Your task to perform on an android device: see sites visited before in the chrome app Image 0: 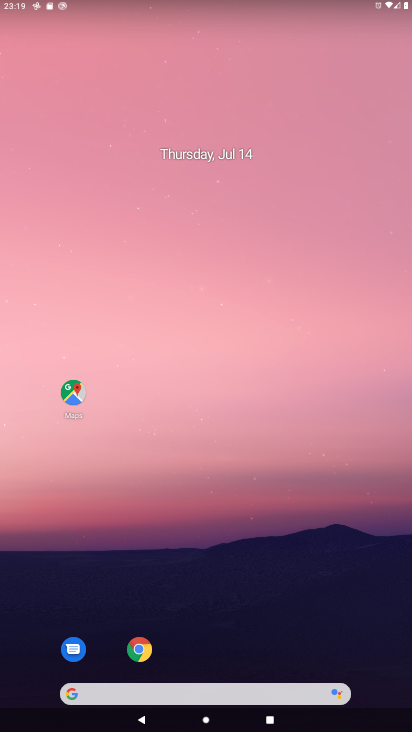
Step 0: click (137, 648)
Your task to perform on an android device: see sites visited before in the chrome app Image 1: 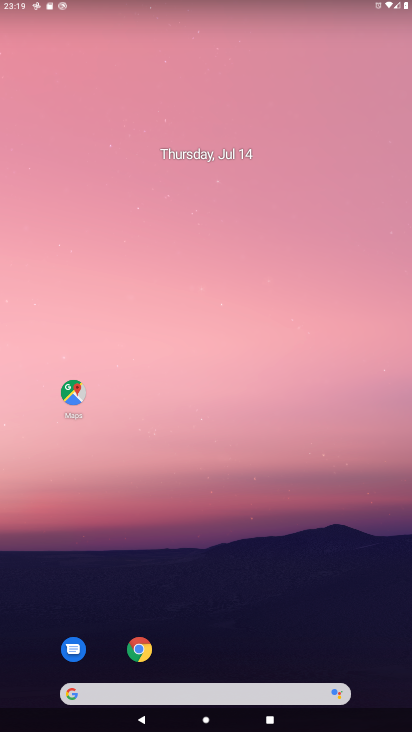
Step 1: click (137, 648)
Your task to perform on an android device: see sites visited before in the chrome app Image 2: 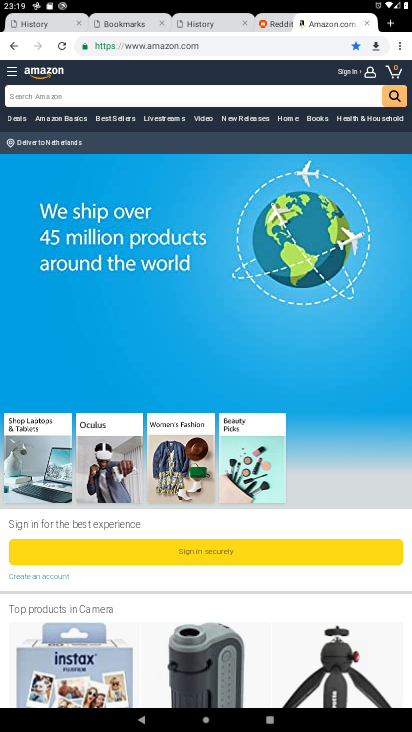
Step 2: click (400, 42)
Your task to perform on an android device: see sites visited before in the chrome app Image 3: 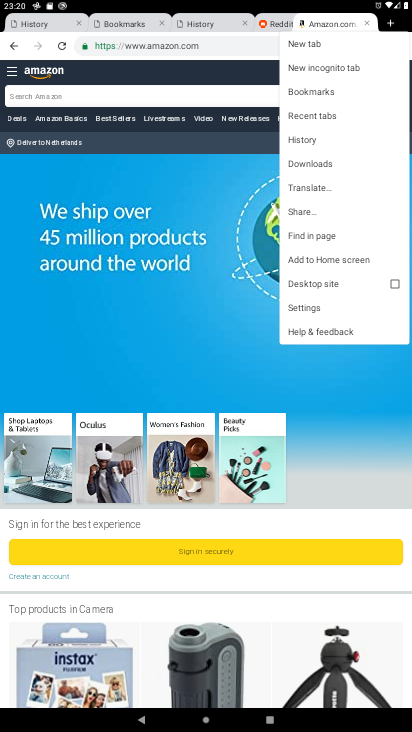
Step 3: click (356, 114)
Your task to perform on an android device: see sites visited before in the chrome app Image 4: 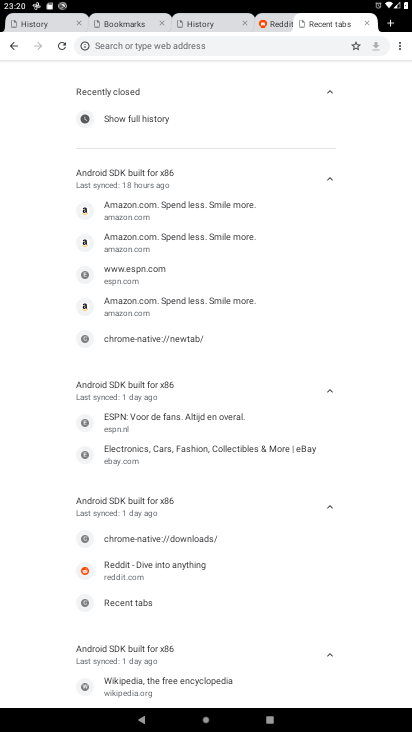
Step 4: task complete